Your task to perform on an android device: toggle improve location accuracy Image 0: 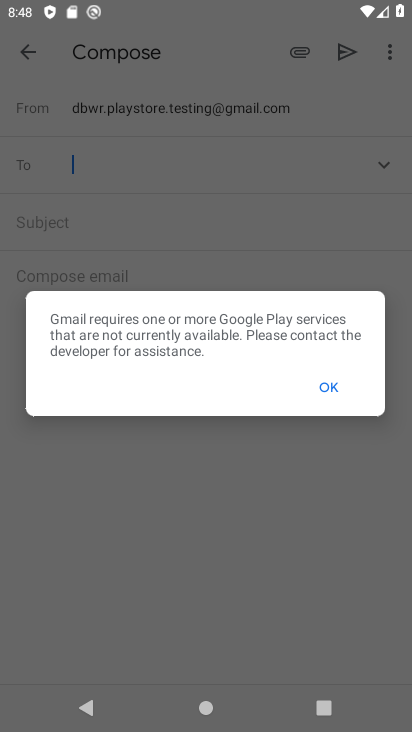
Step 0: press home button
Your task to perform on an android device: toggle improve location accuracy Image 1: 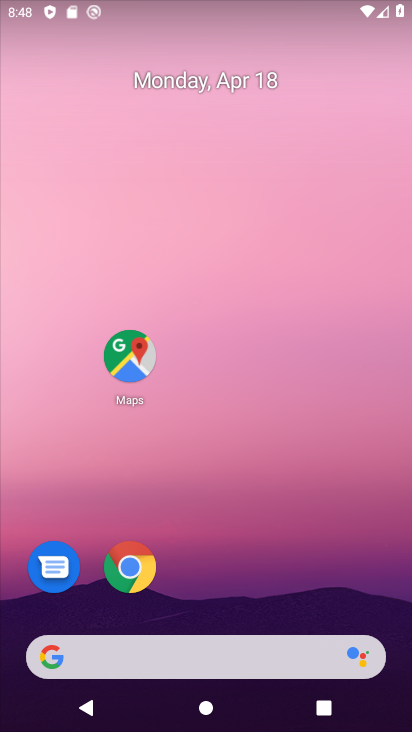
Step 1: drag from (282, 618) to (347, 156)
Your task to perform on an android device: toggle improve location accuracy Image 2: 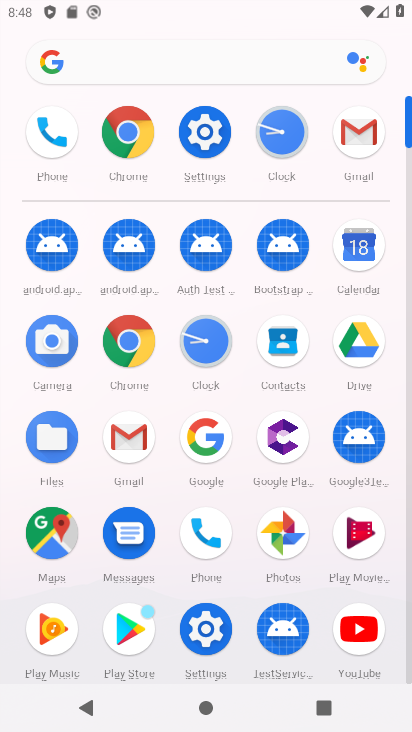
Step 2: click (202, 604)
Your task to perform on an android device: toggle improve location accuracy Image 3: 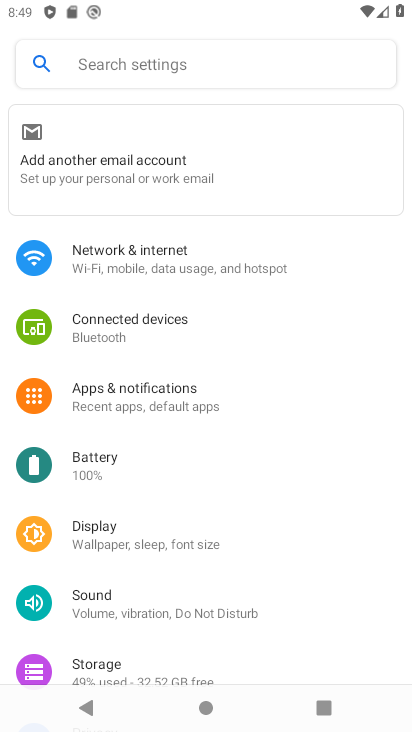
Step 3: click (171, 71)
Your task to perform on an android device: toggle improve location accuracy Image 4: 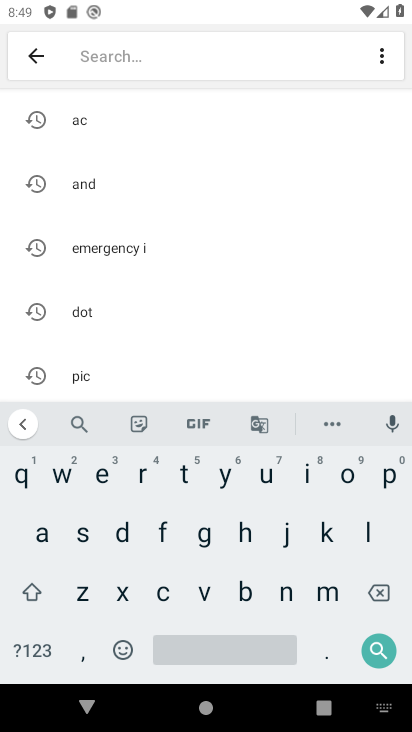
Step 4: click (356, 541)
Your task to perform on an android device: toggle improve location accuracy Image 5: 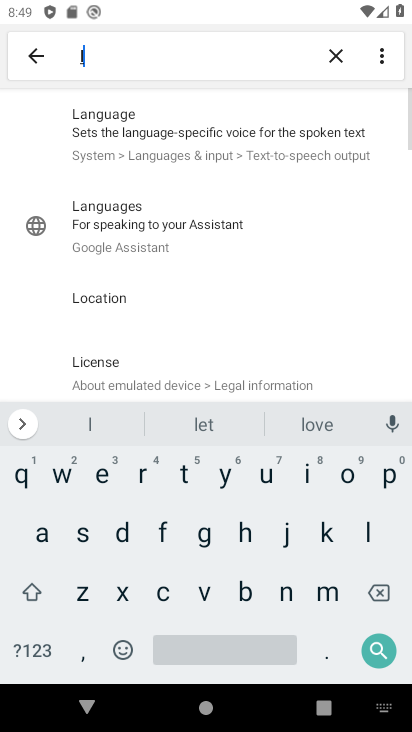
Step 5: click (341, 474)
Your task to perform on an android device: toggle improve location accuracy Image 6: 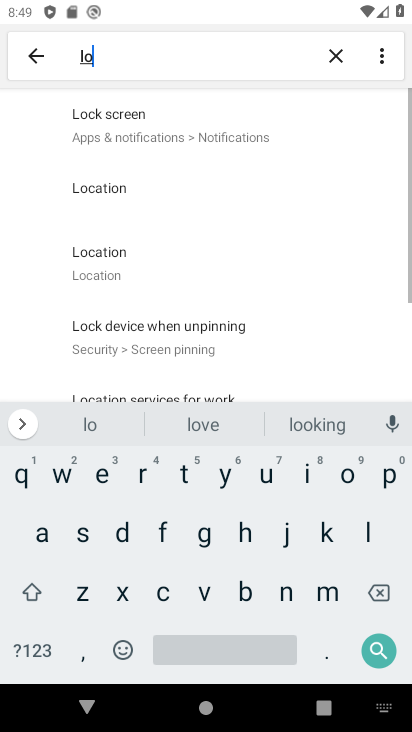
Step 6: click (163, 598)
Your task to perform on an android device: toggle improve location accuracy Image 7: 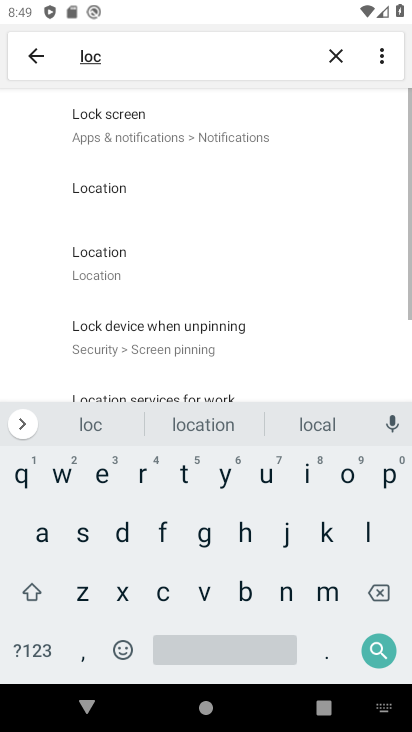
Step 7: click (36, 539)
Your task to perform on an android device: toggle improve location accuracy Image 8: 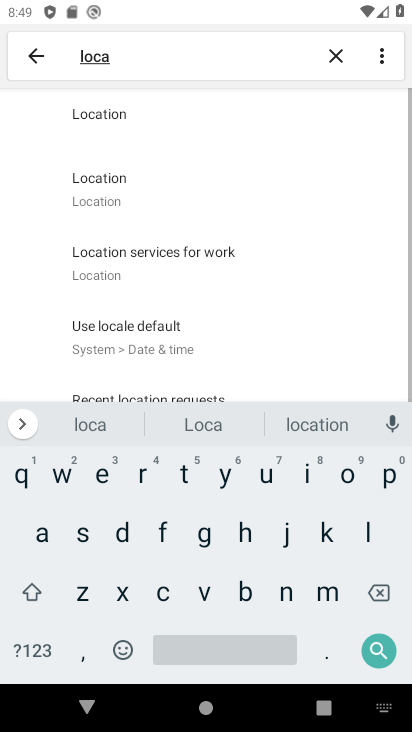
Step 8: click (130, 175)
Your task to perform on an android device: toggle improve location accuracy Image 9: 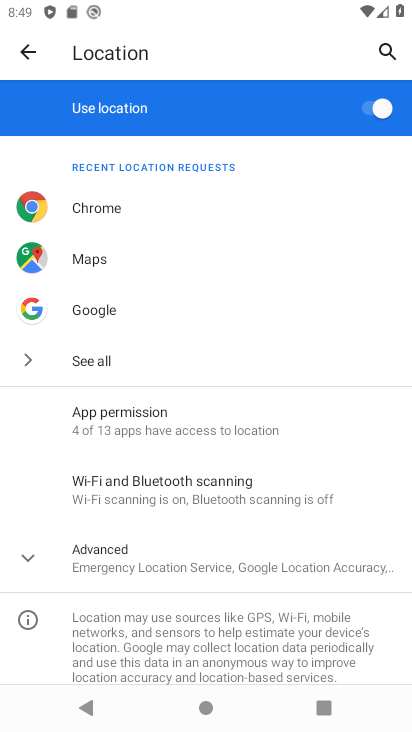
Step 9: click (74, 544)
Your task to perform on an android device: toggle improve location accuracy Image 10: 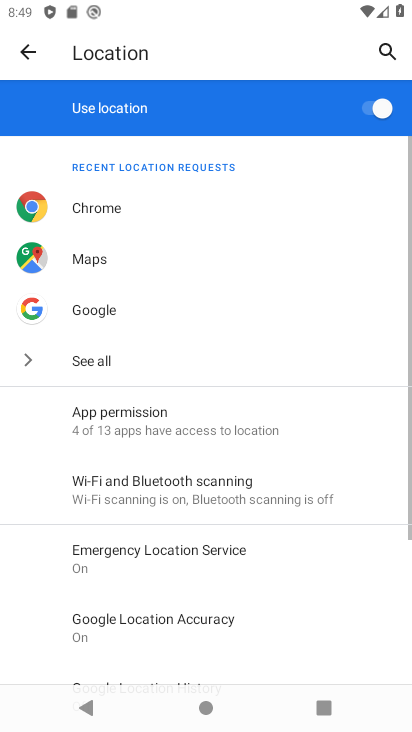
Step 10: drag from (189, 559) to (257, 420)
Your task to perform on an android device: toggle improve location accuracy Image 11: 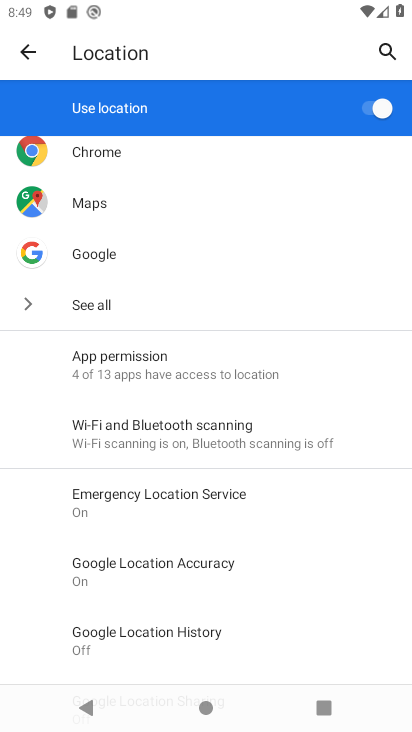
Step 11: click (141, 574)
Your task to perform on an android device: toggle improve location accuracy Image 12: 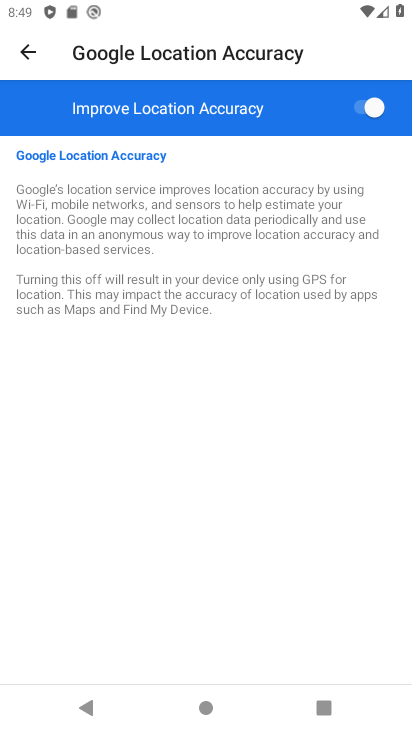
Step 12: task complete